Your task to perform on an android device: Go to Yahoo.com Image 0: 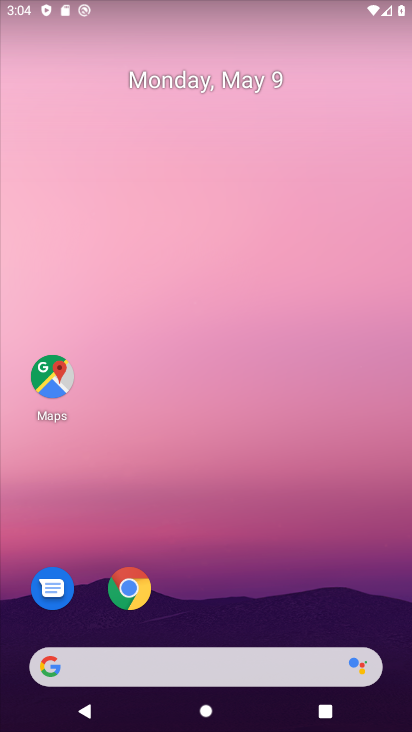
Step 0: click (135, 592)
Your task to perform on an android device: Go to Yahoo.com Image 1: 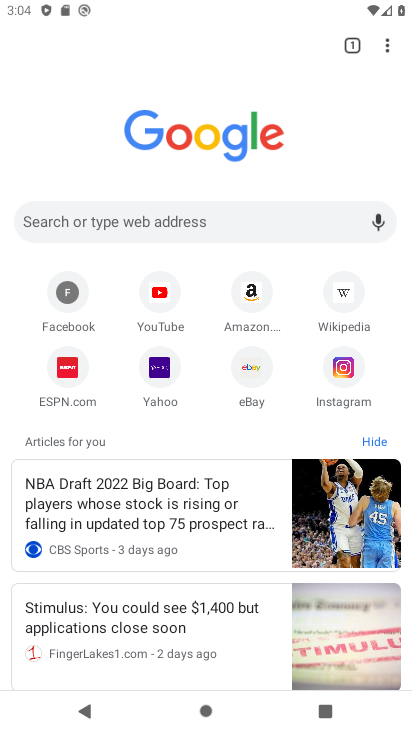
Step 1: click (149, 365)
Your task to perform on an android device: Go to Yahoo.com Image 2: 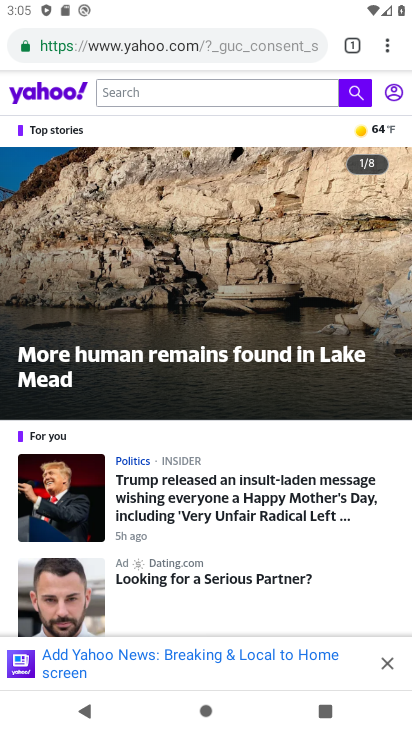
Step 2: task complete